Your task to perform on an android device: Open Youtube and go to the subscriptions tab Image 0: 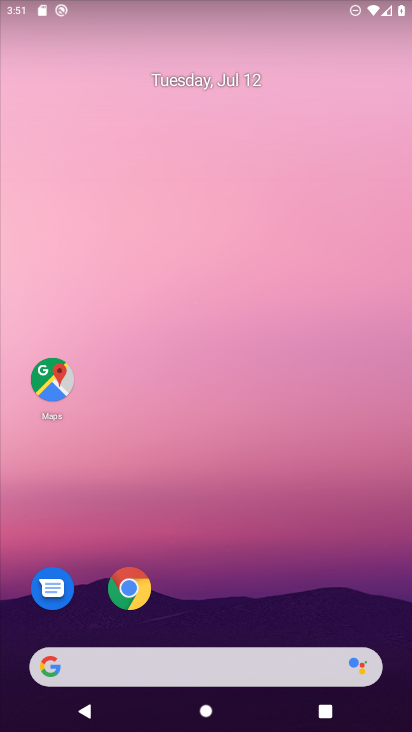
Step 0: drag from (327, 620) to (274, 33)
Your task to perform on an android device: Open Youtube and go to the subscriptions tab Image 1: 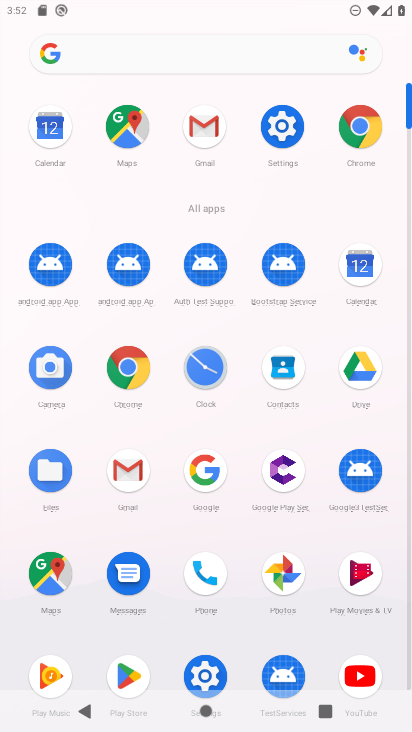
Step 1: click (358, 662)
Your task to perform on an android device: Open Youtube and go to the subscriptions tab Image 2: 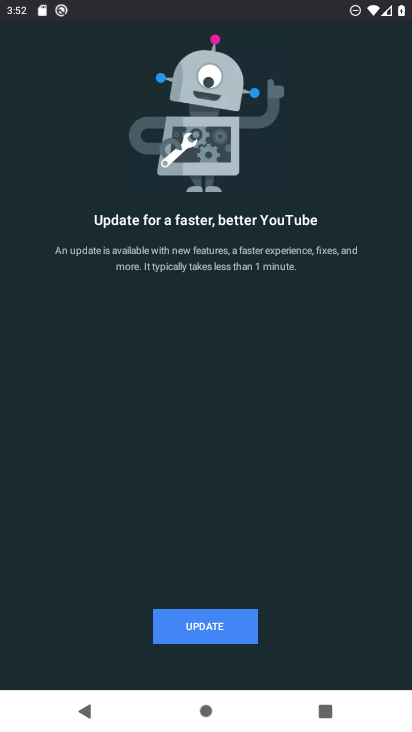
Step 2: click (241, 622)
Your task to perform on an android device: Open Youtube and go to the subscriptions tab Image 3: 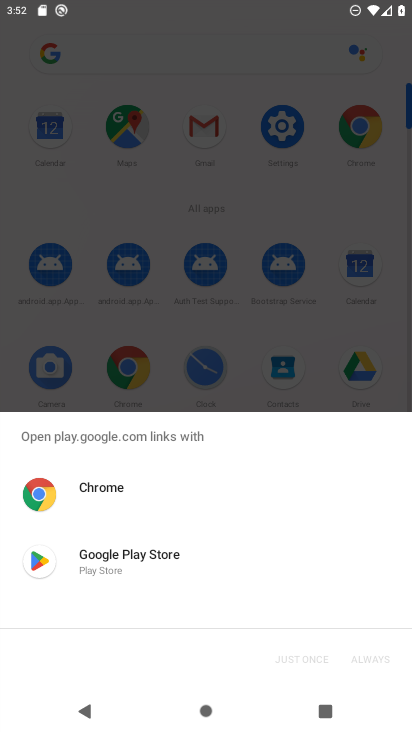
Step 3: click (154, 553)
Your task to perform on an android device: Open Youtube and go to the subscriptions tab Image 4: 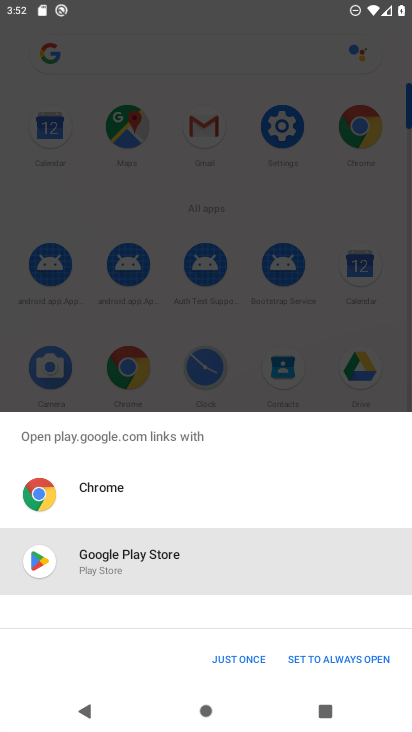
Step 4: click (233, 654)
Your task to perform on an android device: Open Youtube and go to the subscriptions tab Image 5: 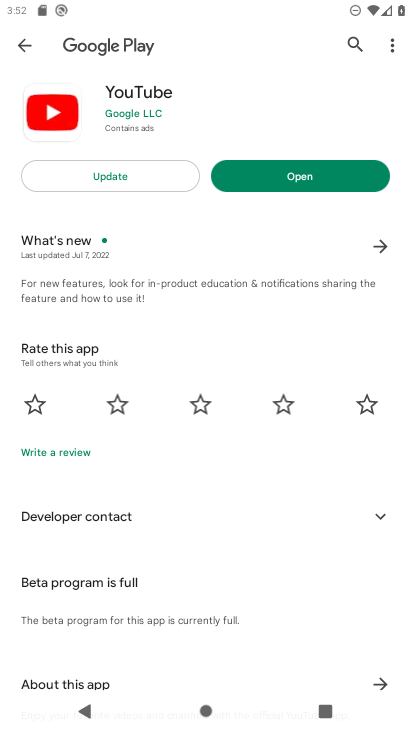
Step 5: click (110, 177)
Your task to perform on an android device: Open Youtube and go to the subscriptions tab Image 6: 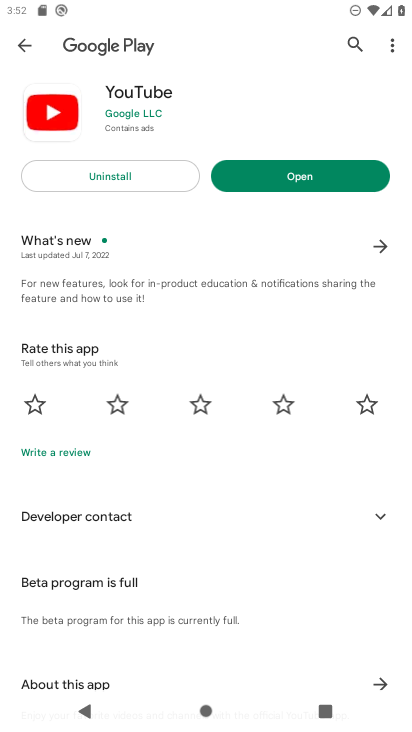
Step 6: click (306, 167)
Your task to perform on an android device: Open Youtube and go to the subscriptions tab Image 7: 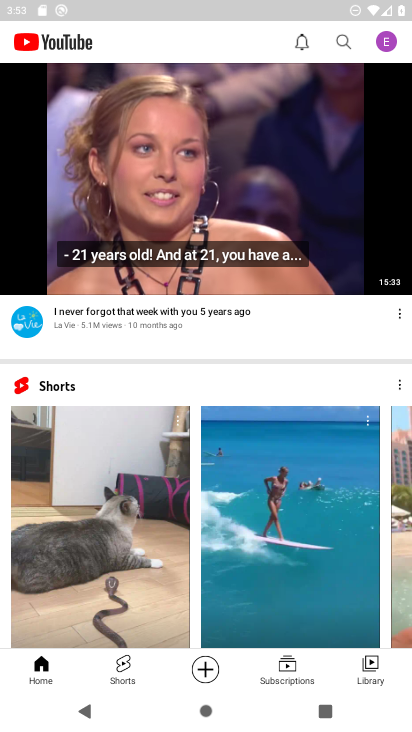
Step 7: click (282, 671)
Your task to perform on an android device: Open Youtube and go to the subscriptions tab Image 8: 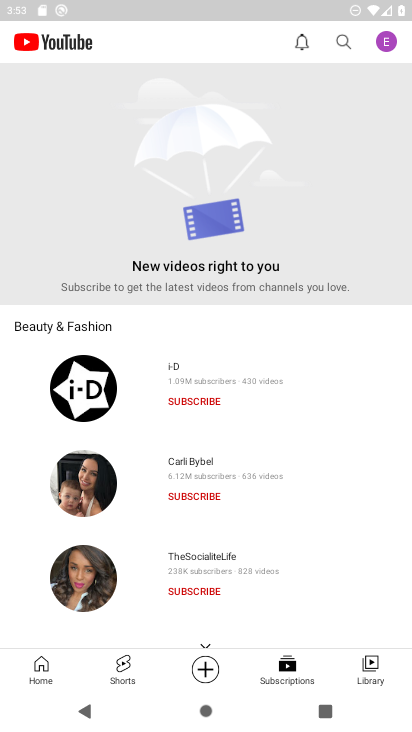
Step 8: task complete